Your task to perform on an android device: manage bookmarks in the chrome app Image 0: 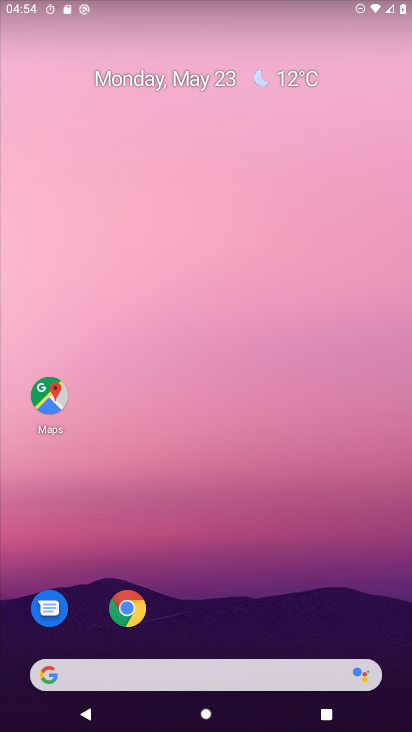
Step 0: click (129, 600)
Your task to perform on an android device: manage bookmarks in the chrome app Image 1: 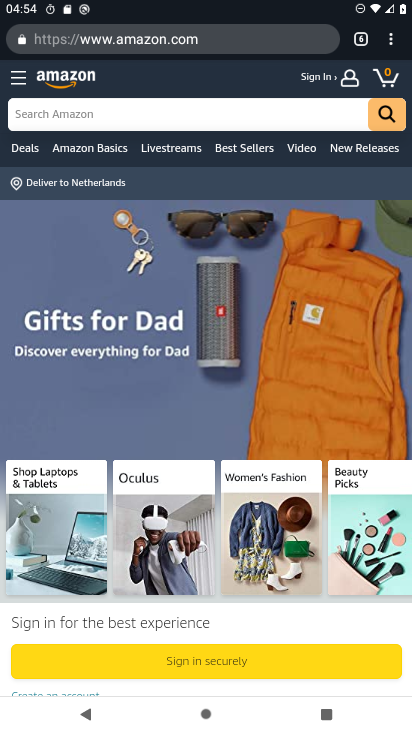
Step 1: click (393, 44)
Your task to perform on an android device: manage bookmarks in the chrome app Image 2: 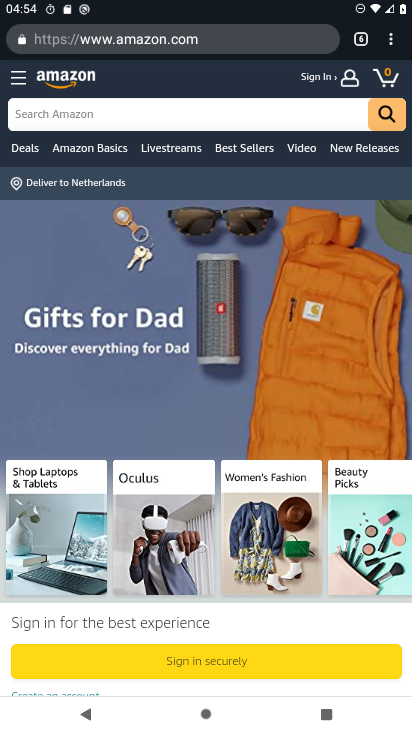
Step 2: click (391, 37)
Your task to perform on an android device: manage bookmarks in the chrome app Image 3: 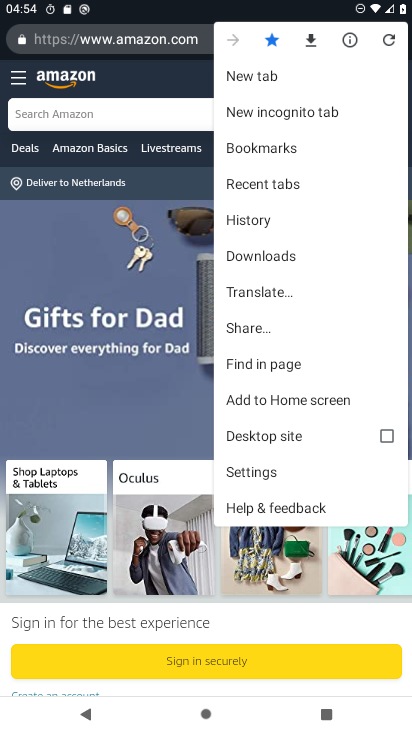
Step 3: click (291, 138)
Your task to perform on an android device: manage bookmarks in the chrome app Image 4: 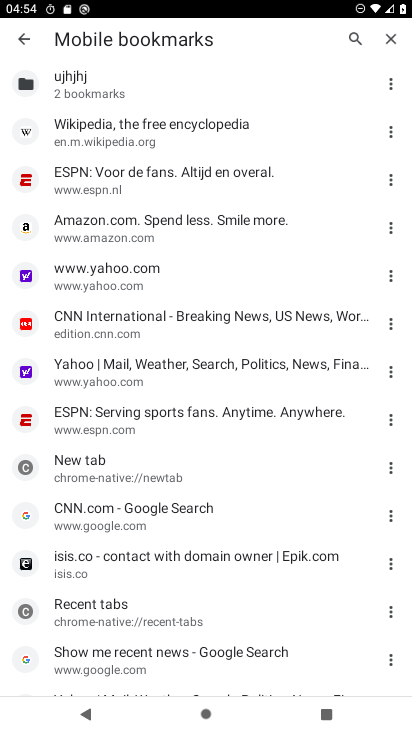
Step 4: click (392, 323)
Your task to perform on an android device: manage bookmarks in the chrome app Image 5: 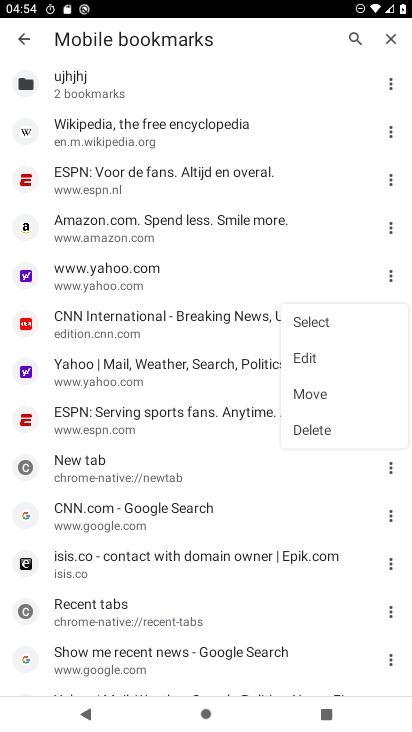
Step 5: click (321, 427)
Your task to perform on an android device: manage bookmarks in the chrome app Image 6: 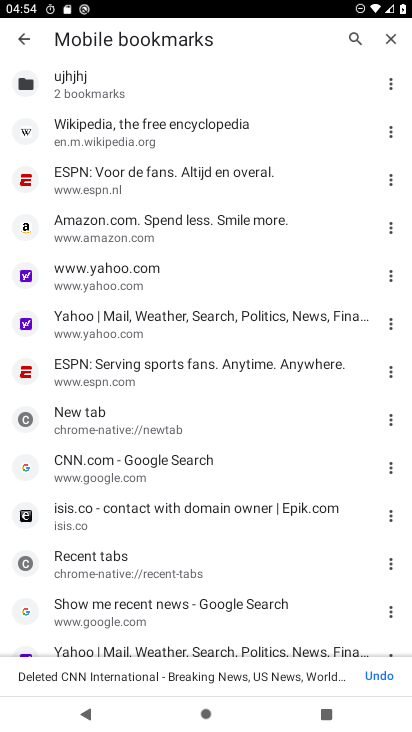
Step 6: task complete